Your task to perform on an android device: Show the shopping cart on newegg.com. Search for razer thresher on newegg.com, select the first entry, and add it to the cart. Image 0: 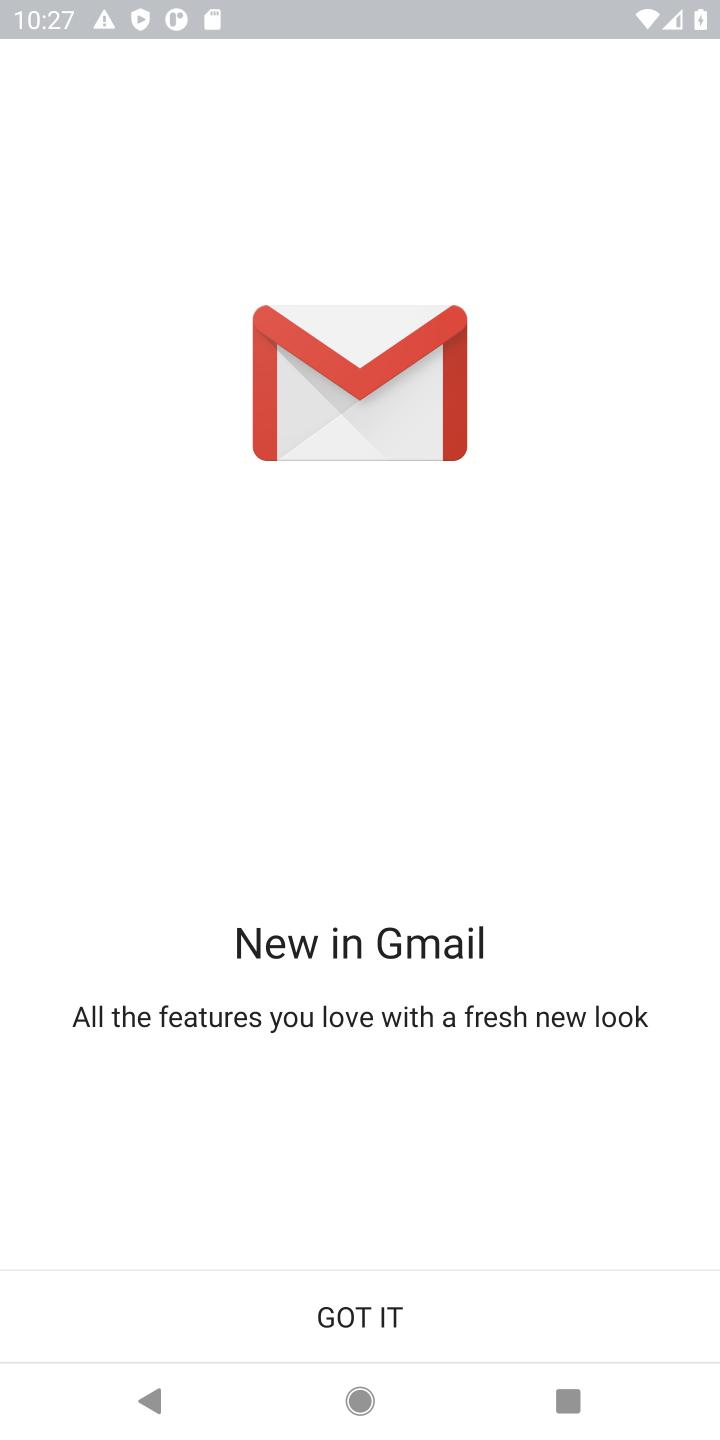
Step 0: press home button
Your task to perform on an android device: Show the shopping cart on newegg.com. Search for razer thresher on newegg.com, select the first entry, and add it to the cart. Image 1: 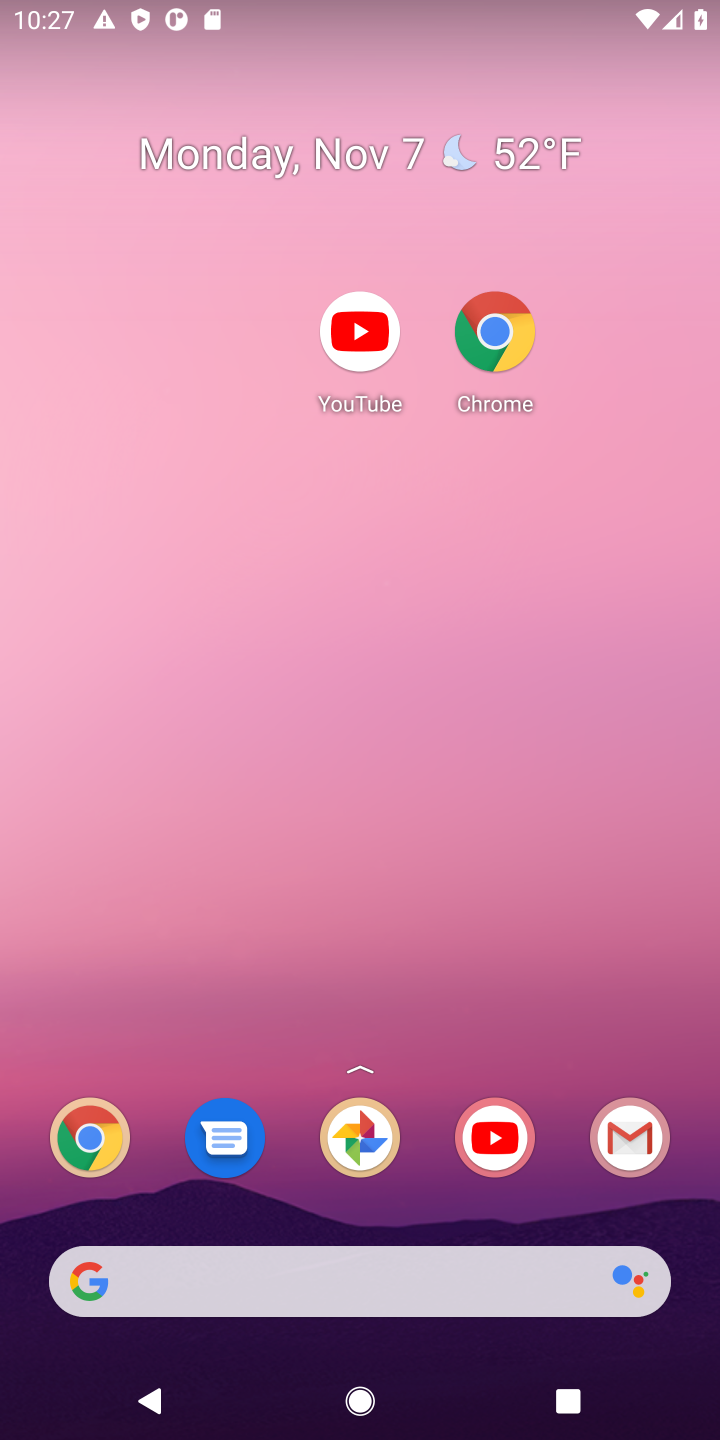
Step 1: drag from (296, 1217) to (250, 41)
Your task to perform on an android device: Show the shopping cart on newegg.com. Search for razer thresher on newegg.com, select the first entry, and add it to the cart. Image 2: 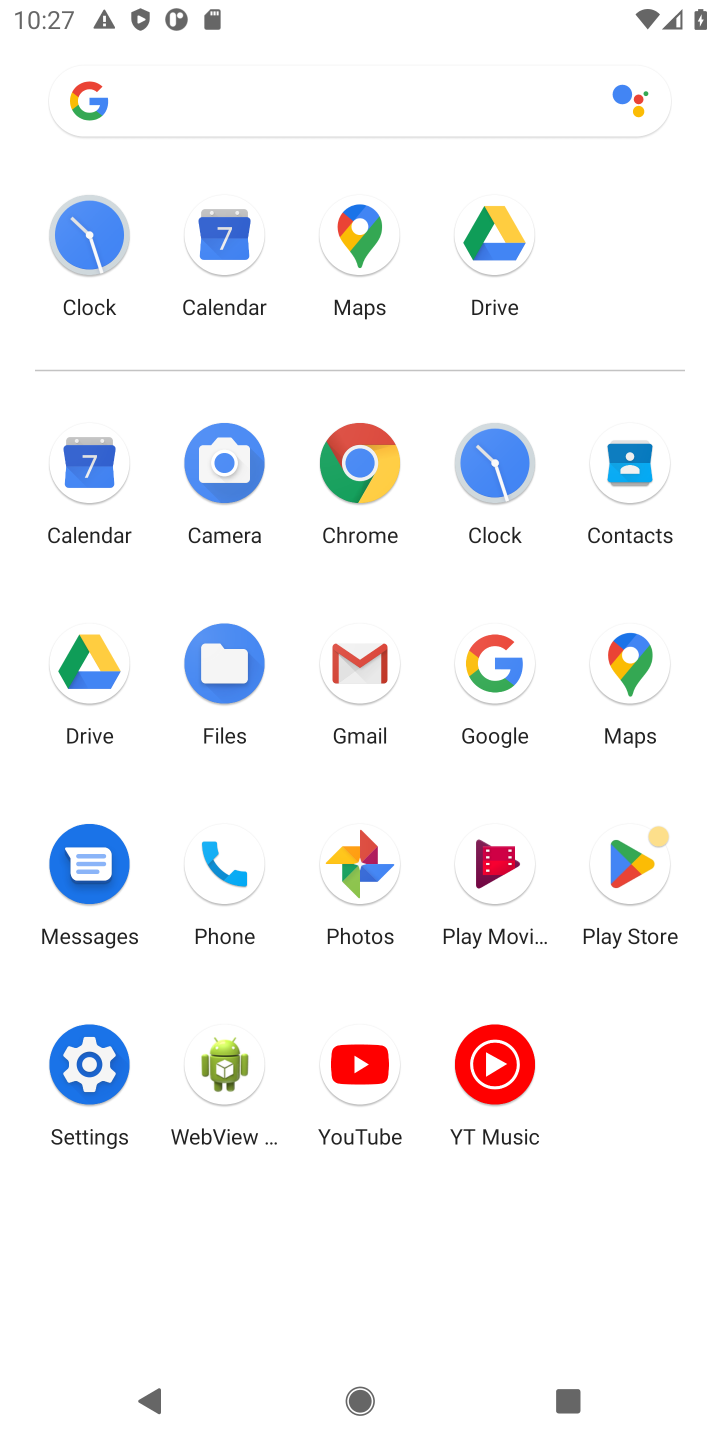
Step 2: click (351, 465)
Your task to perform on an android device: Show the shopping cart on newegg.com. Search for razer thresher on newegg.com, select the first entry, and add it to the cart. Image 3: 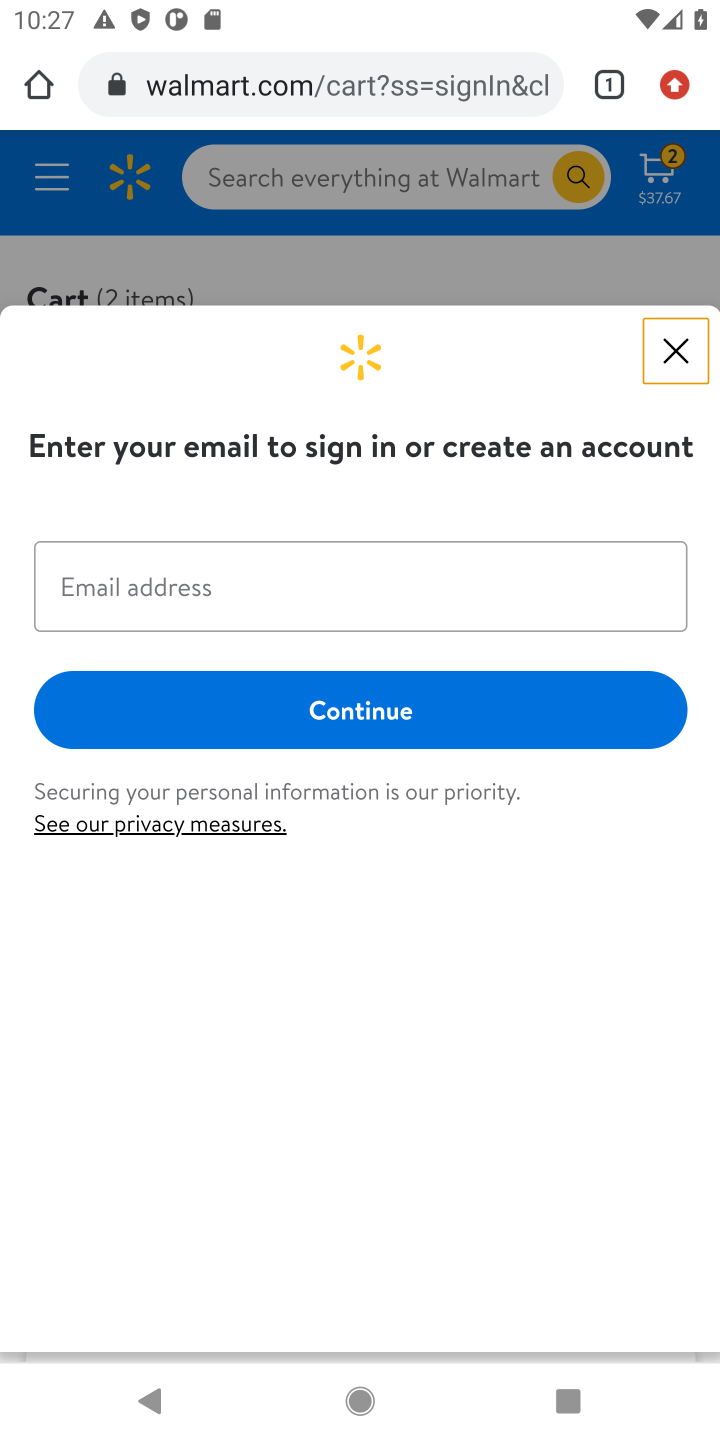
Step 3: click (304, 79)
Your task to perform on an android device: Show the shopping cart on newegg.com. Search for razer thresher on newegg.com, select the first entry, and add it to the cart. Image 4: 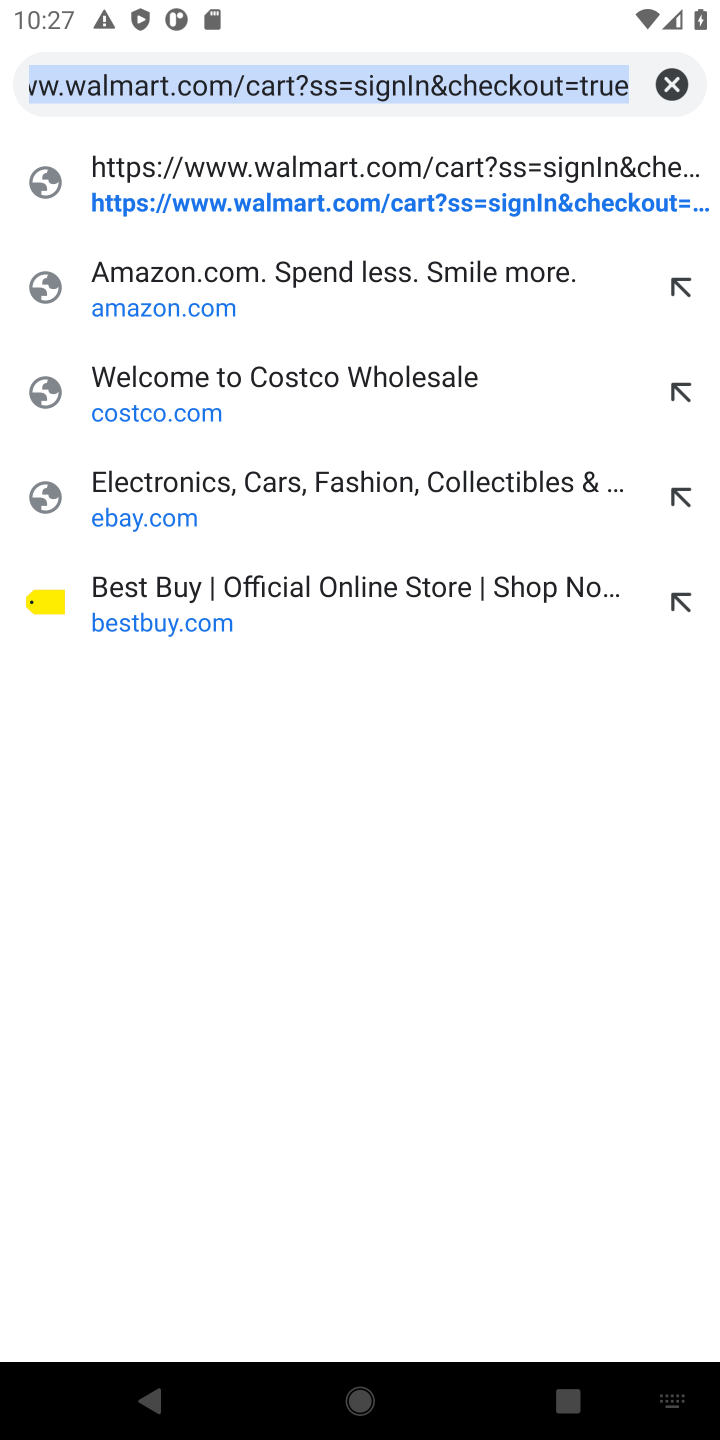
Step 4: type "newegg.com"
Your task to perform on an android device: Show the shopping cart on newegg.com. Search for razer thresher on newegg.com, select the first entry, and add it to the cart. Image 5: 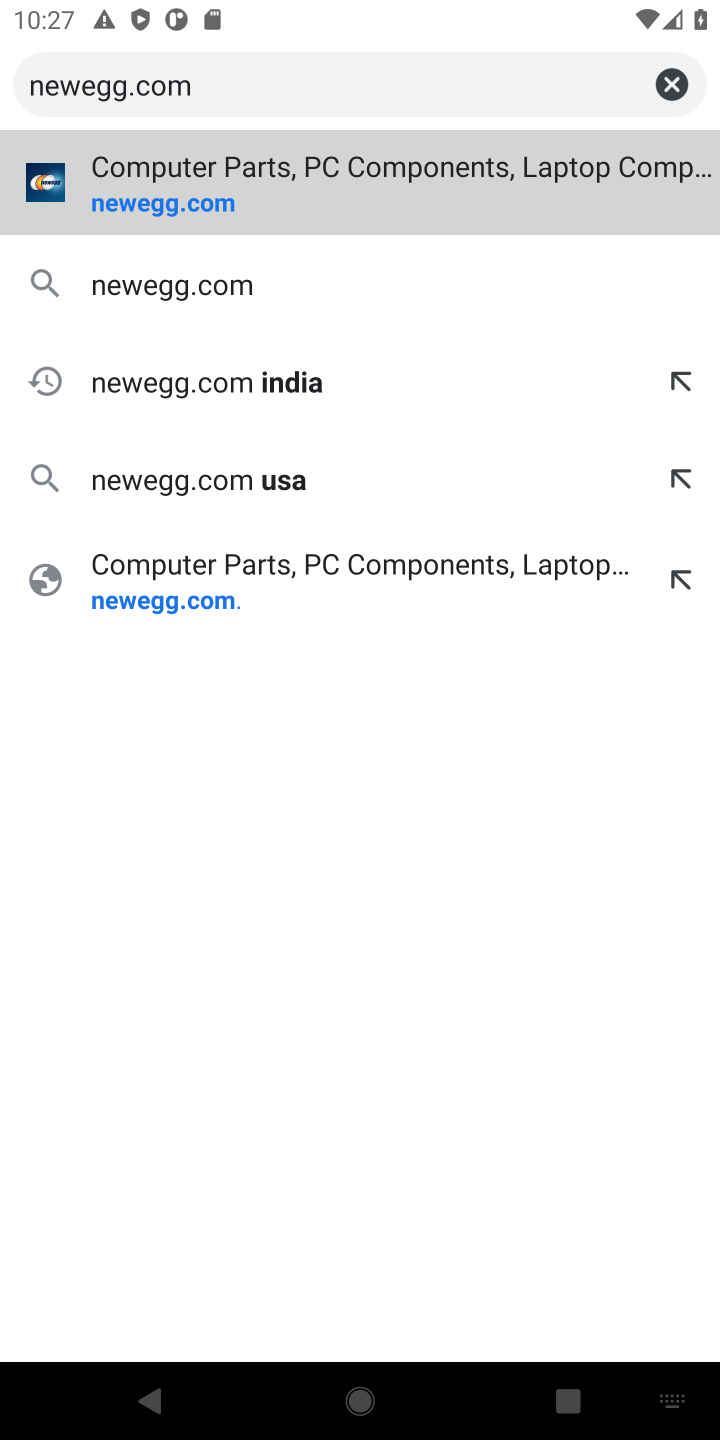
Step 5: press enter
Your task to perform on an android device: Show the shopping cart on newegg.com. Search for razer thresher on newegg.com, select the first entry, and add it to the cart. Image 6: 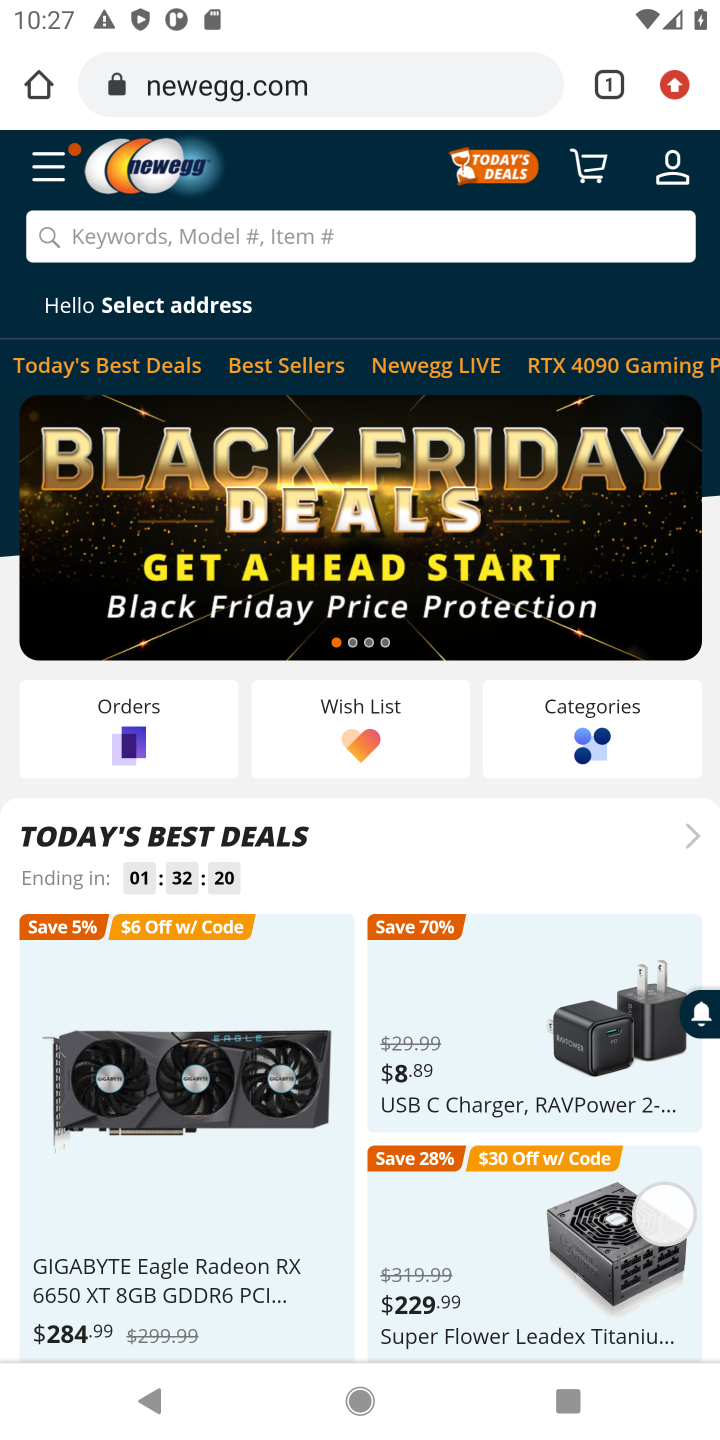
Step 6: click (593, 176)
Your task to perform on an android device: Show the shopping cart on newegg.com. Search for razer thresher on newegg.com, select the first entry, and add it to the cart. Image 7: 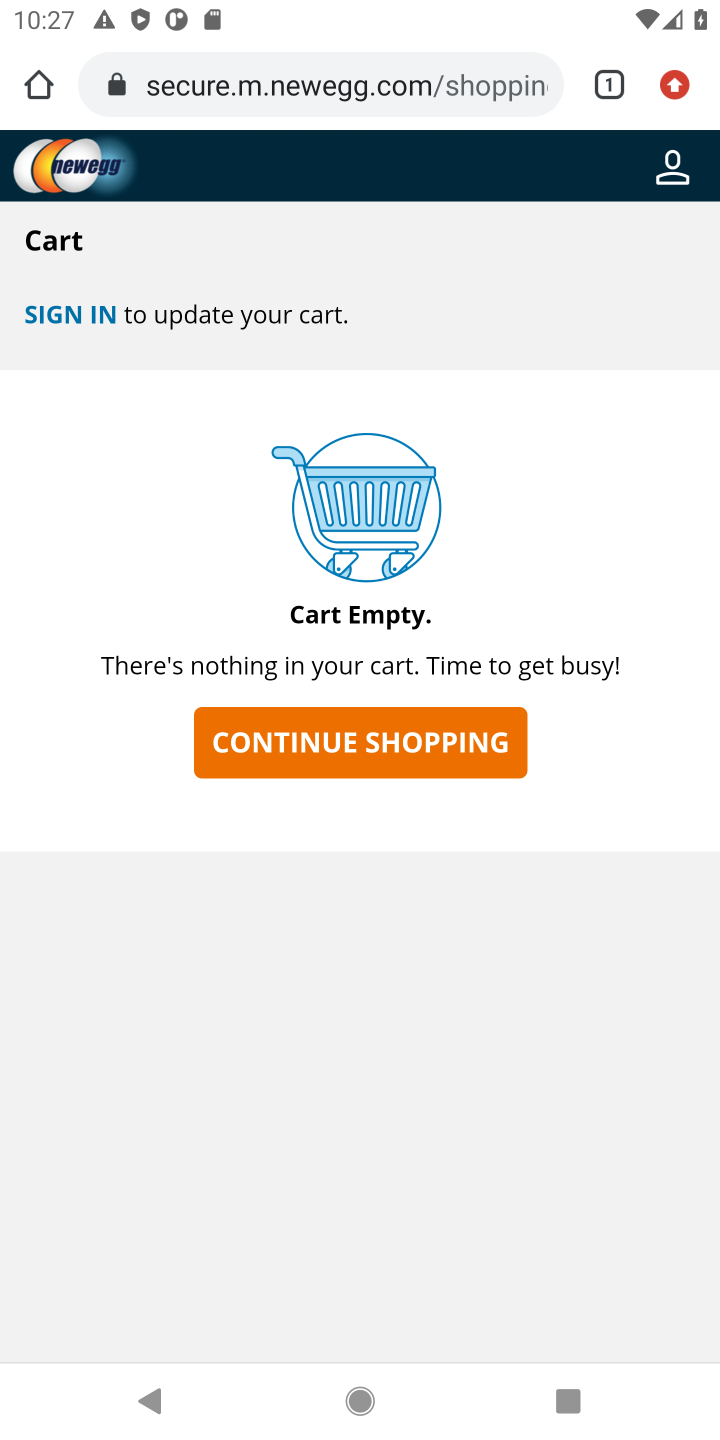
Step 7: click (398, 738)
Your task to perform on an android device: Show the shopping cart on newegg.com. Search for razer thresher on newegg.com, select the first entry, and add it to the cart. Image 8: 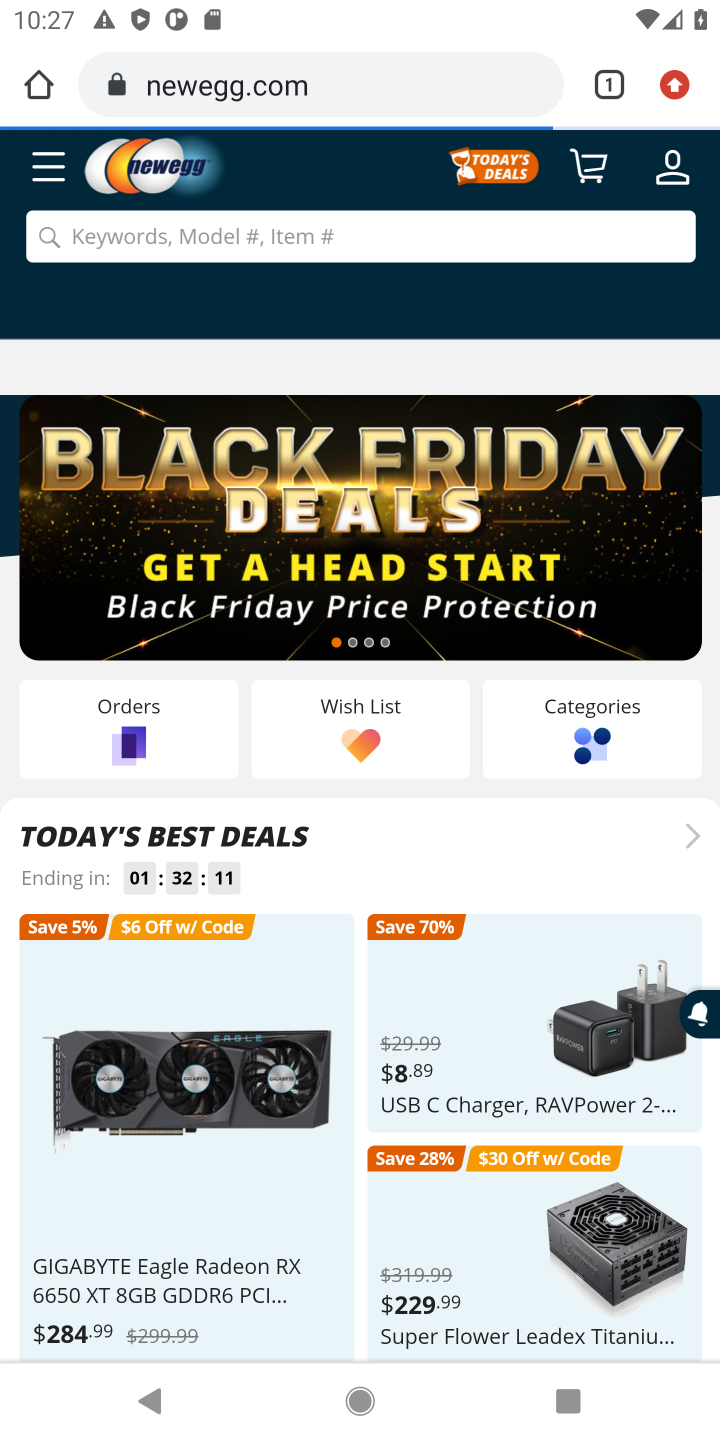
Step 8: click (368, 224)
Your task to perform on an android device: Show the shopping cart on newegg.com. Search for razer thresher on newegg.com, select the first entry, and add it to the cart. Image 9: 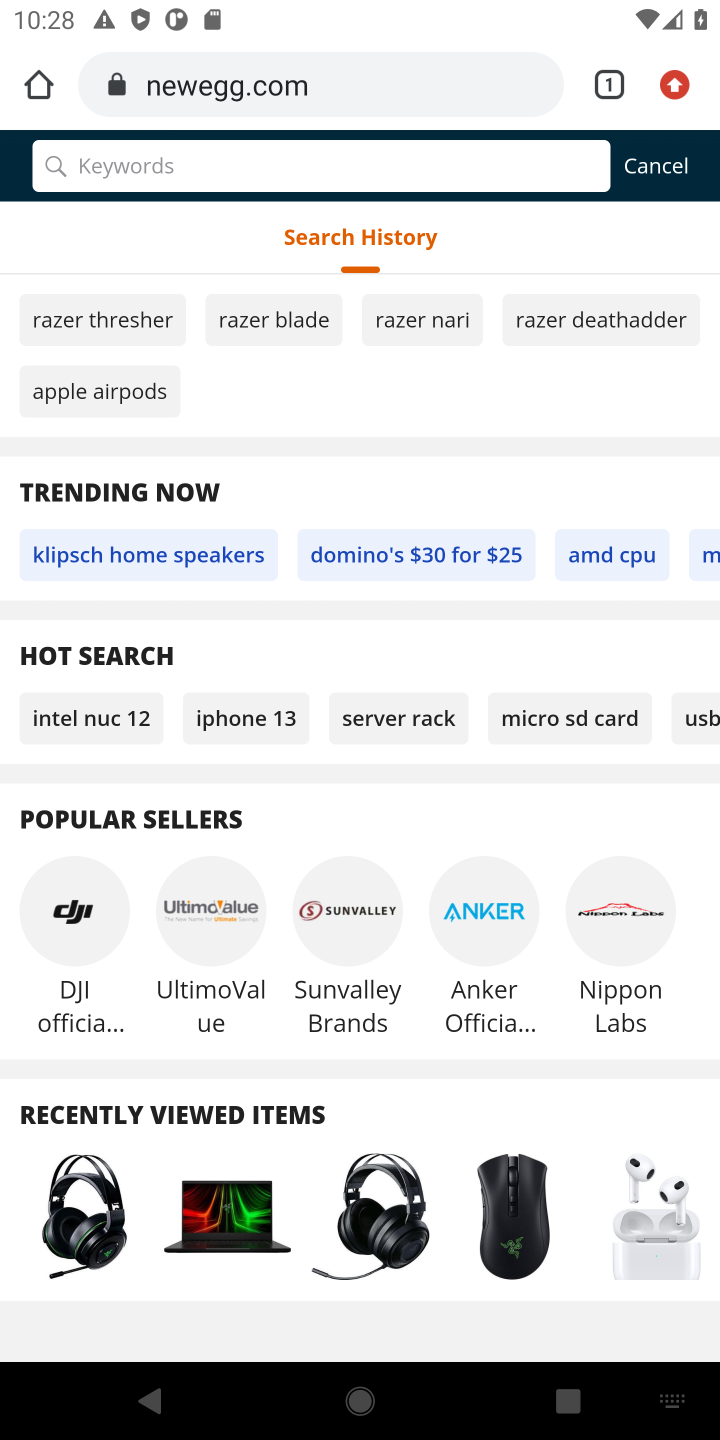
Step 9: type "razer thresher"
Your task to perform on an android device: Show the shopping cart on newegg.com. Search for razer thresher on newegg.com, select the first entry, and add it to the cart. Image 10: 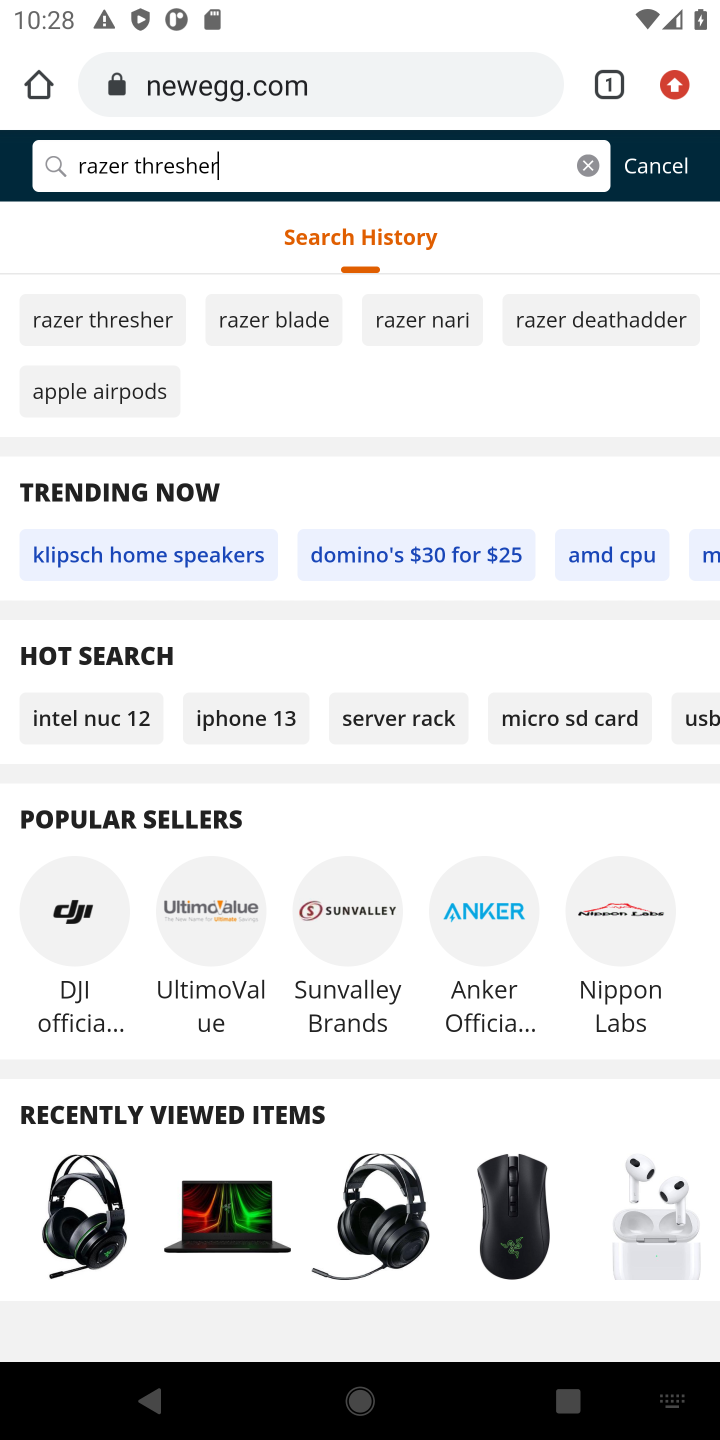
Step 10: press enter
Your task to perform on an android device: Show the shopping cart on newegg.com. Search for razer thresher on newegg.com, select the first entry, and add it to the cart. Image 11: 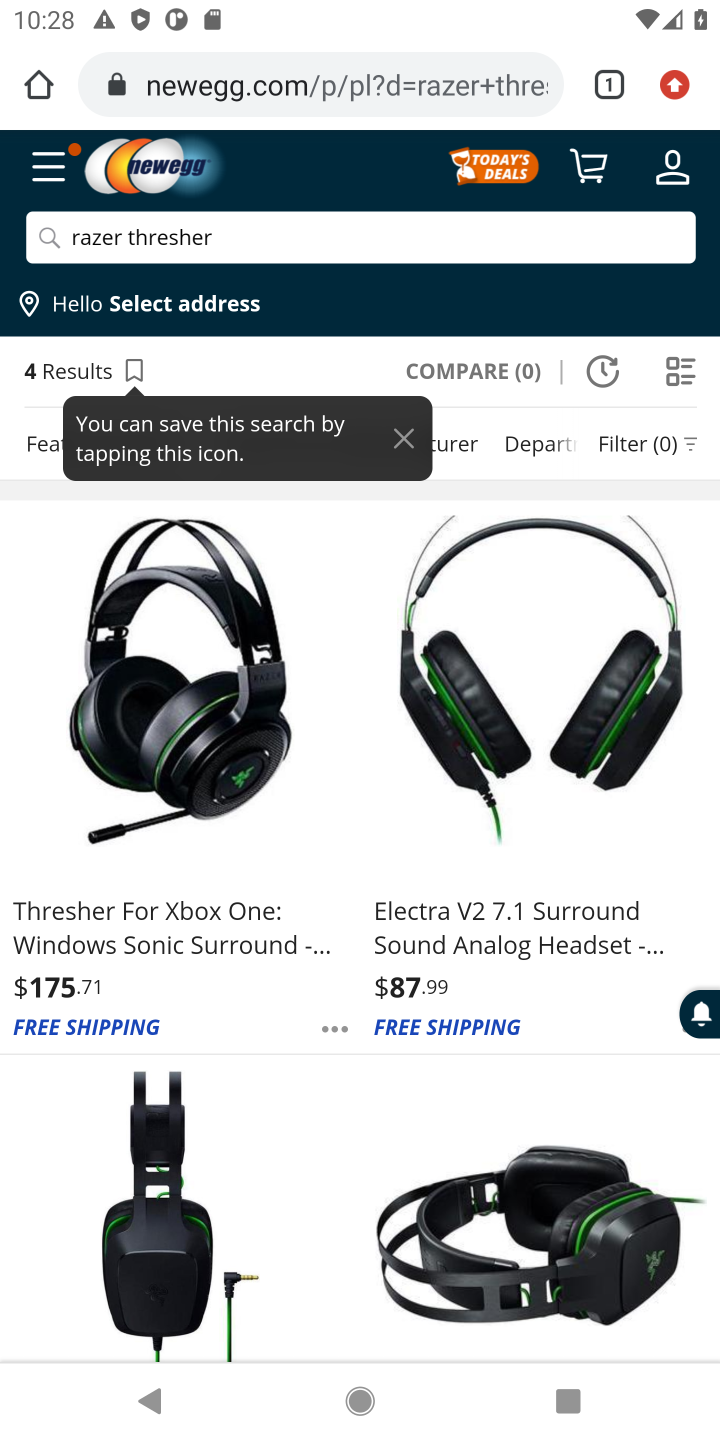
Step 11: drag from (272, 1170) to (283, 740)
Your task to perform on an android device: Show the shopping cart on newegg.com. Search for razer thresher on newegg.com, select the first entry, and add it to the cart. Image 12: 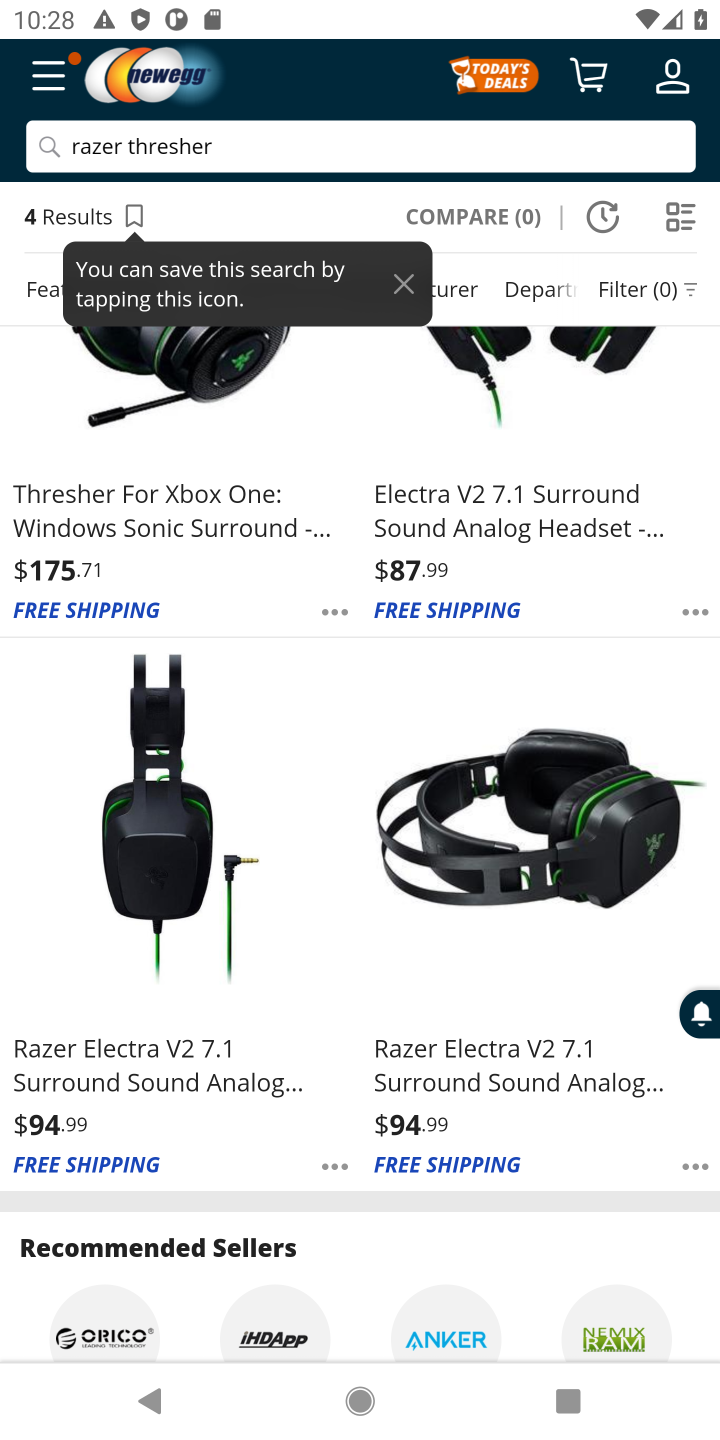
Step 12: drag from (252, 1050) to (266, 445)
Your task to perform on an android device: Show the shopping cart on newegg.com. Search for razer thresher on newegg.com, select the first entry, and add it to the cart. Image 13: 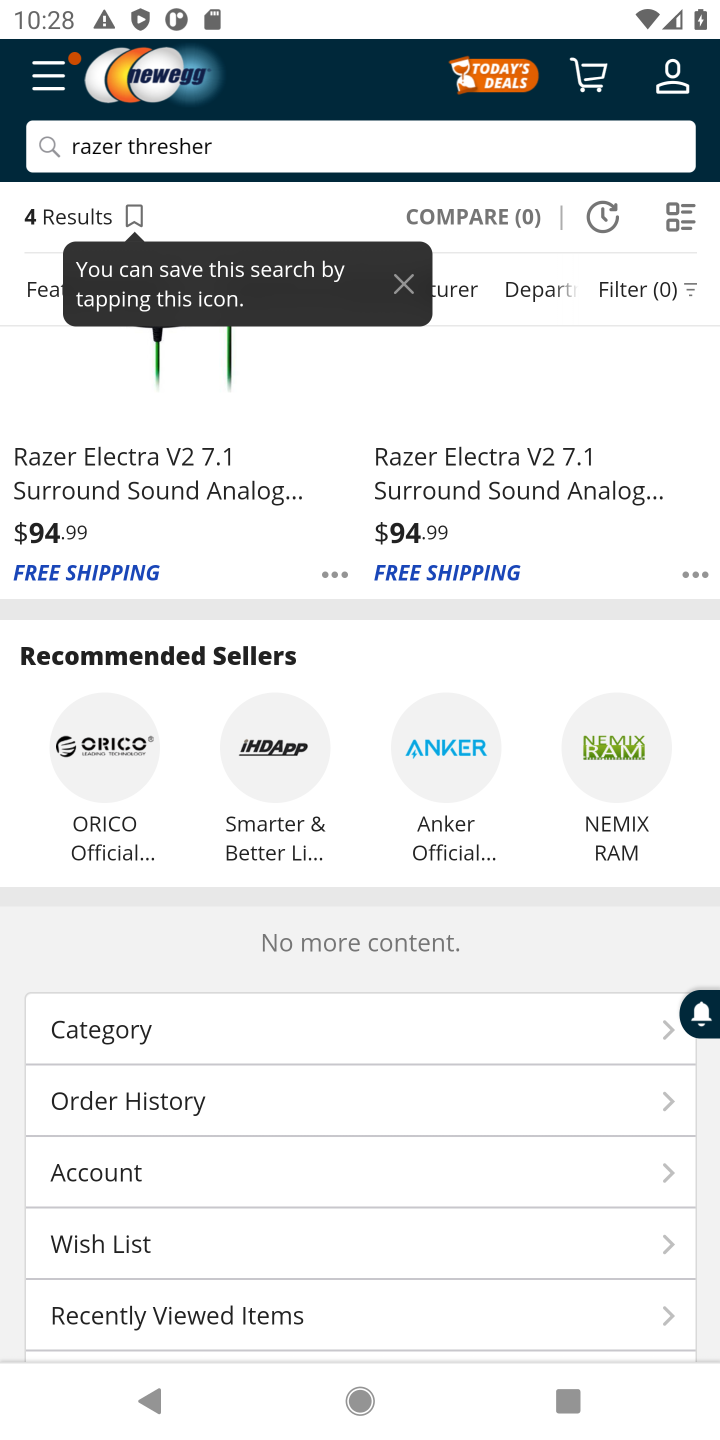
Step 13: drag from (308, 412) to (335, 1427)
Your task to perform on an android device: Show the shopping cart on newegg.com. Search for razer thresher on newegg.com, select the first entry, and add it to the cart. Image 14: 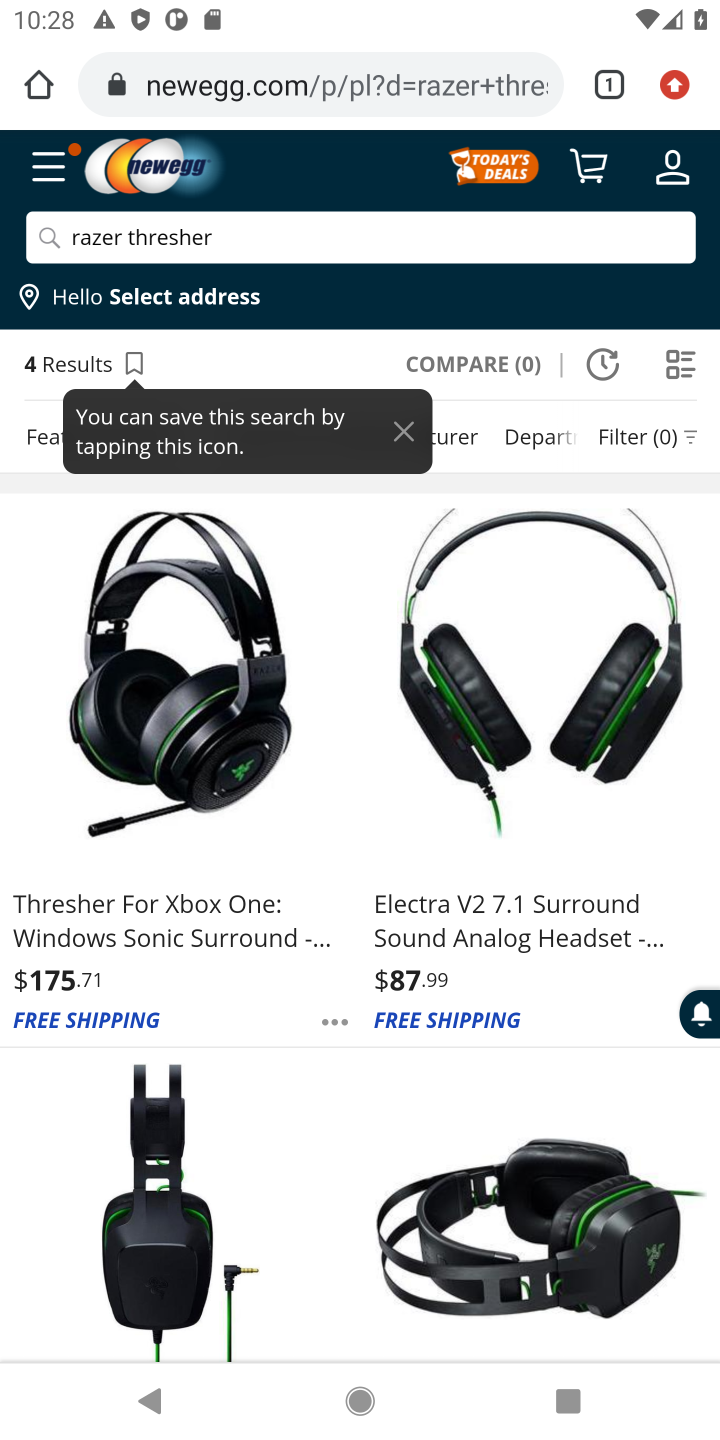
Step 14: click (173, 931)
Your task to perform on an android device: Show the shopping cart on newegg.com. Search for razer thresher on newegg.com, select the first entry, and add it to the cart. Image 15: 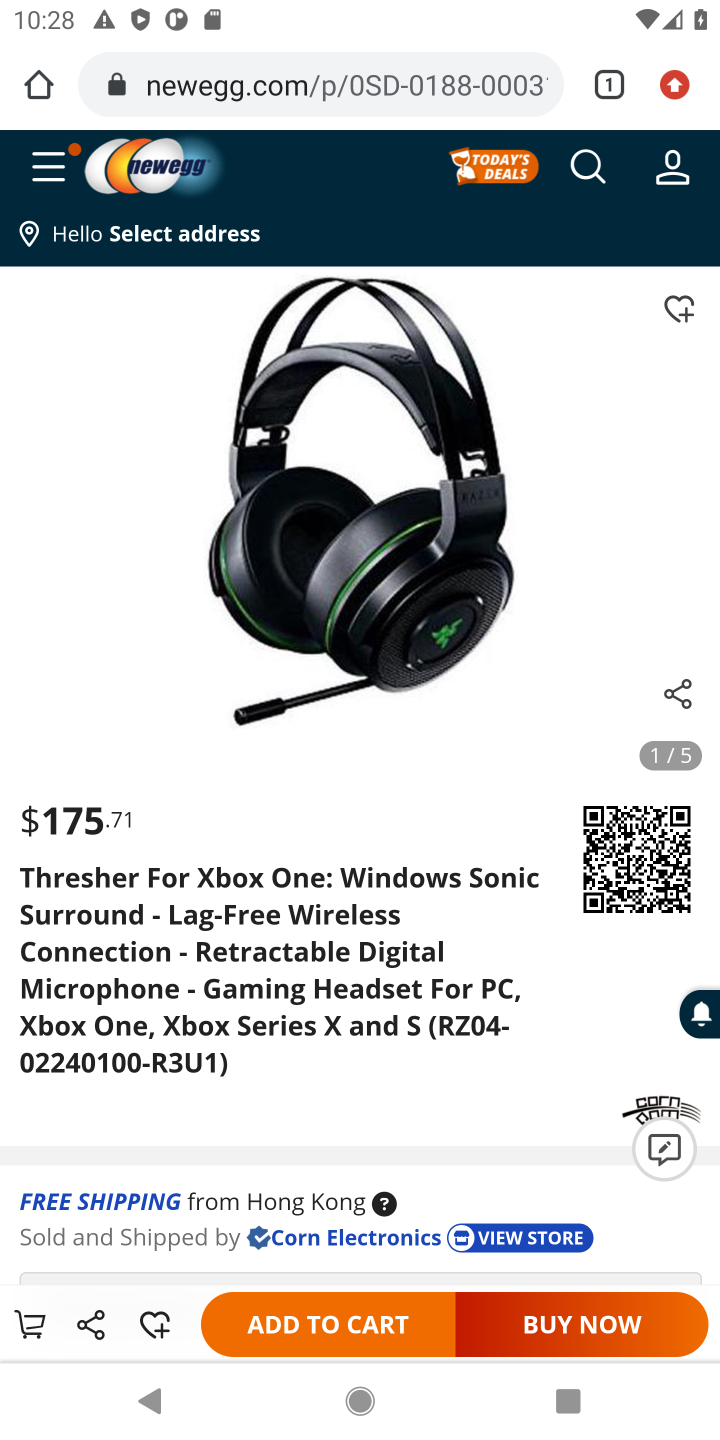
Step 15: task complete